Your task to perform on an android device: See recent photos Image 0: 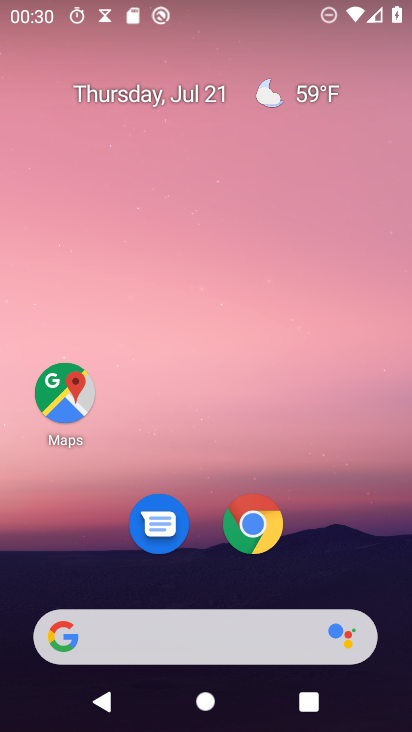
Step 0: drag from (189, 647) to (280, 194)
Your task to perform on an android device: See recent photos Image 1: 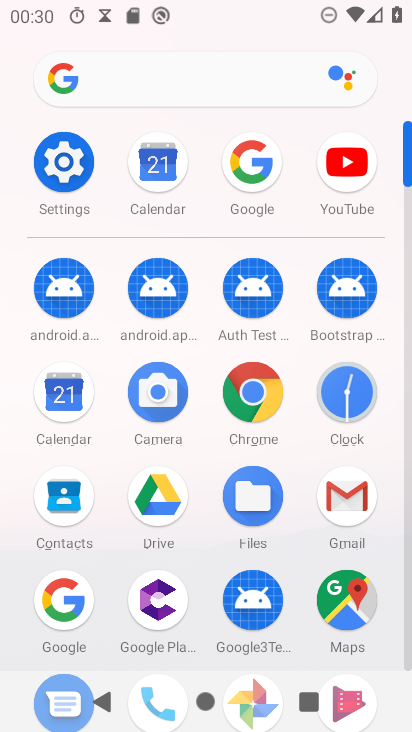
Step 1: drag from (202, 597) to (311, 155)
Your task to perform on an android device: See recent photos Image 2: 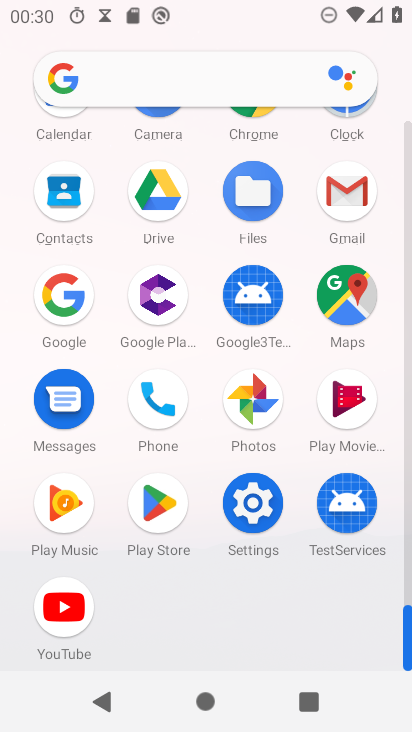
Step 2: click (248, 389)
Your task to perform on an android device: See recent photos Image 3: 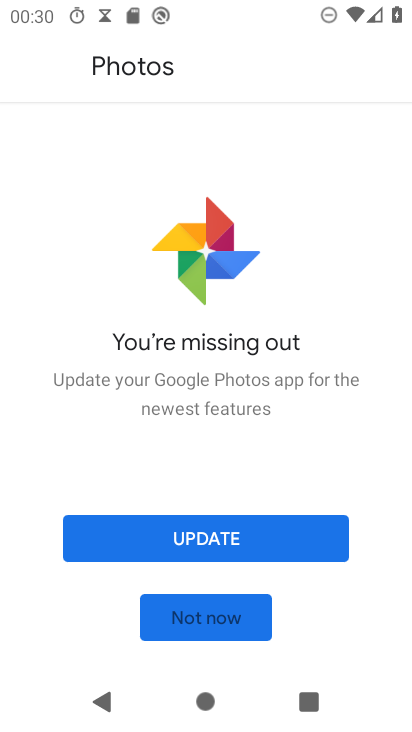
Step 3: click (322, 419)
Your task to perform on an android device: See recent photos Image 4: 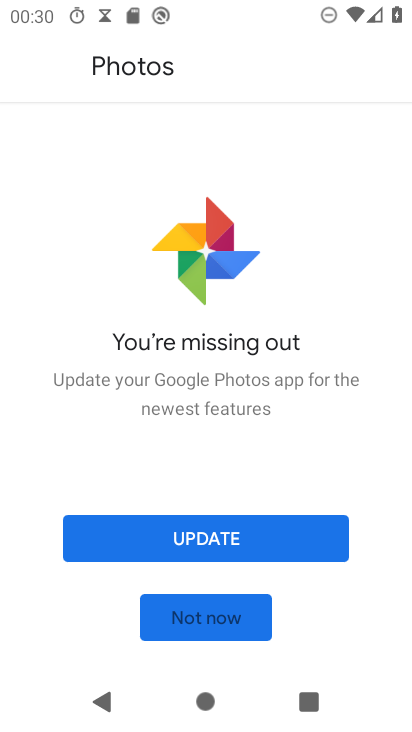
Step 4: click (234, 621)
Your task to perform on an android device: See recent photos Image 5: 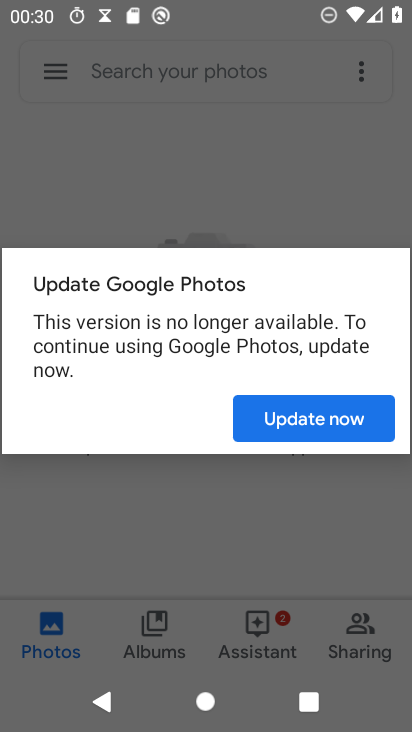
Step 5: click (288, 417)
Your task to perform on an android device: See recent photos Image 6: 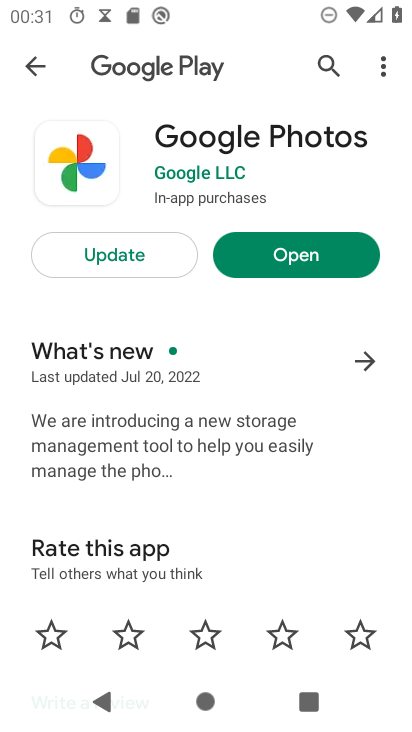
Step 6: click (330, 248)
Your task to perform on an android device: See recent photos Image 7: 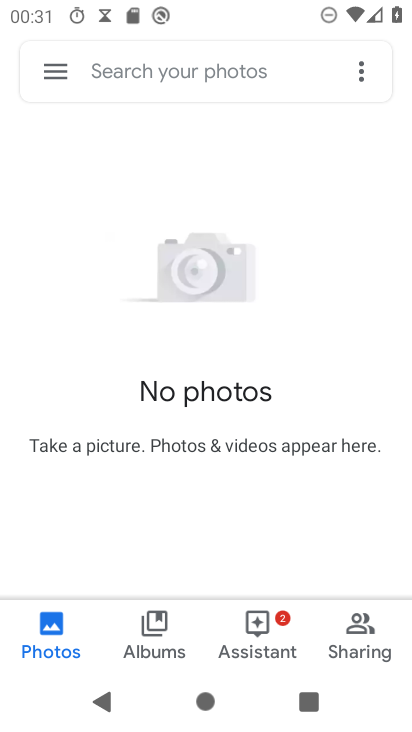
Step 7: click (166, 639)
Your task to perform on an android device: See recent photos Image 8: 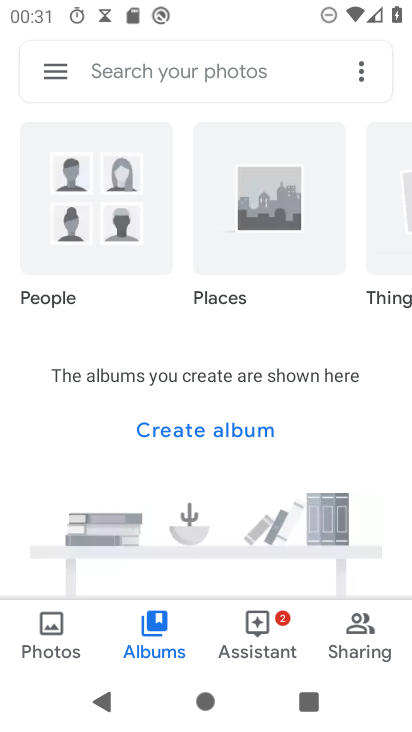
Step 8: task complete